Your task to perform on an android device: When is my next meeting? Image 0: 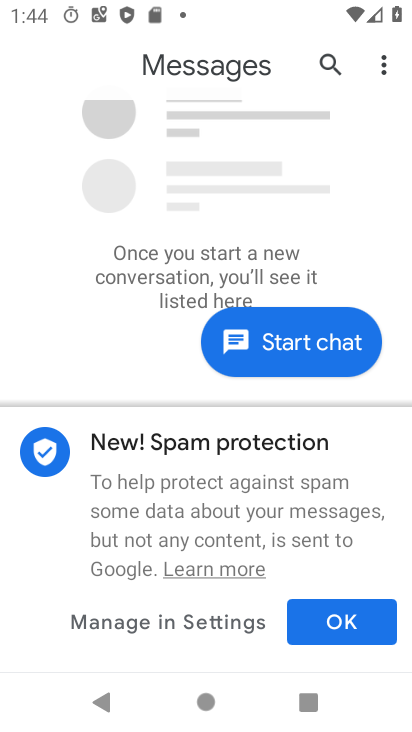
Step 0: press home button
Your task to perform on an android device: When is my next meeting? Image 1: 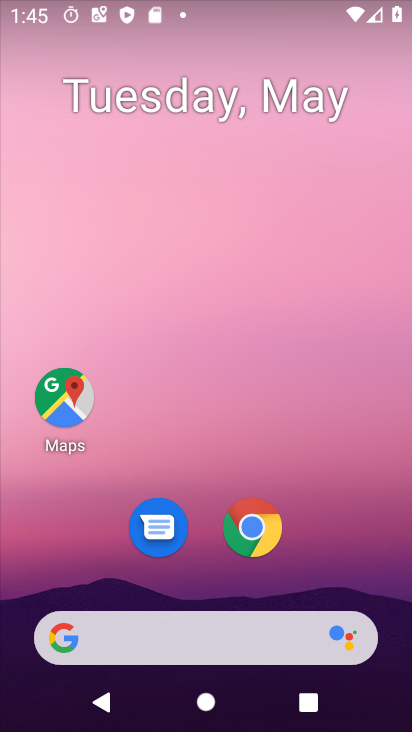
Step 1: drag from (222, 655) to (170, 123)
Your task to perform on an android device: When is my next meeting? Image 2: 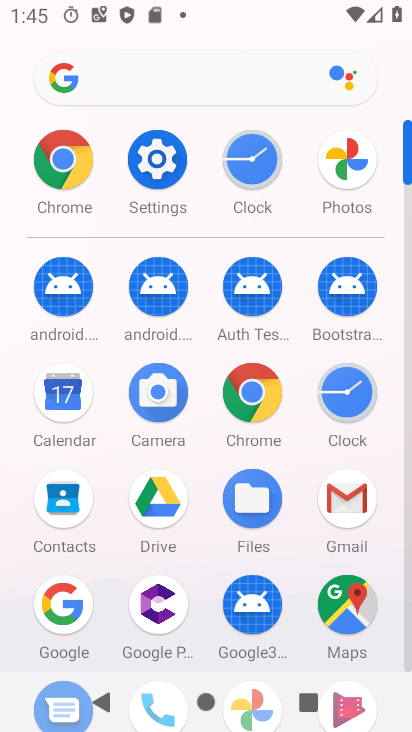
Step 2: click (79, 395)
Your task to perform on an android device: When is my next meeting? Image 3: 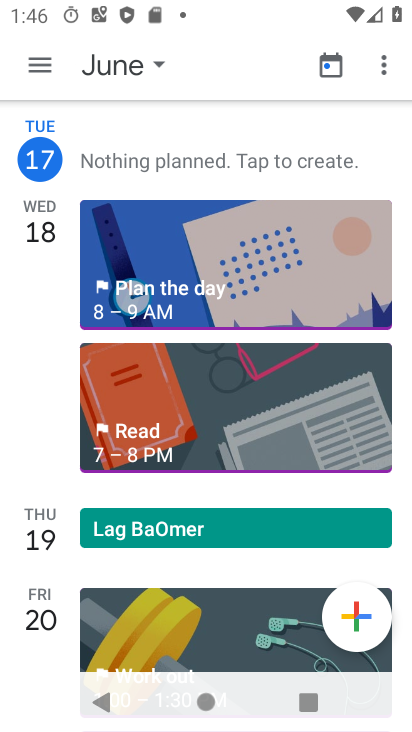
Step 3: task complete